Your task to perform on an android device: Open eBay Image 0: 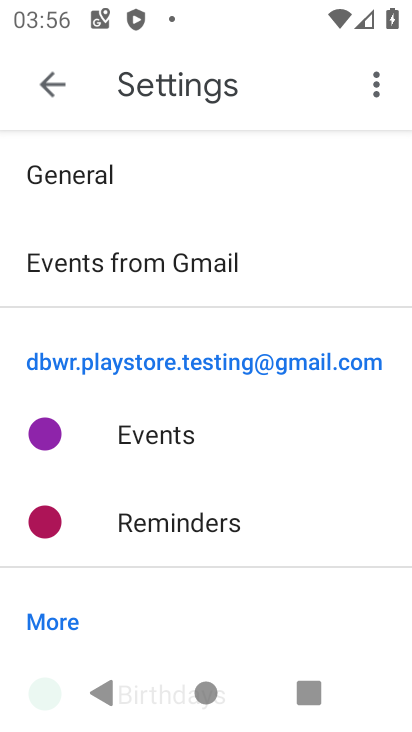
Step 0: press home button
Your task to perform on an android device: Open eBay Image 1: 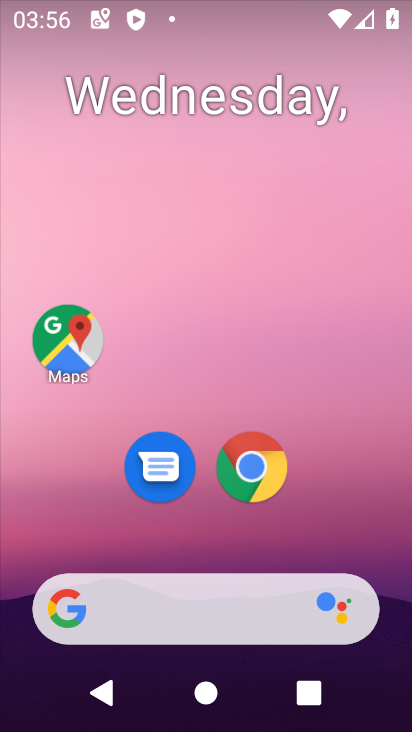
Step 1: click (249, 464)
Your task to perform on an android device: Open eBay Image 2: 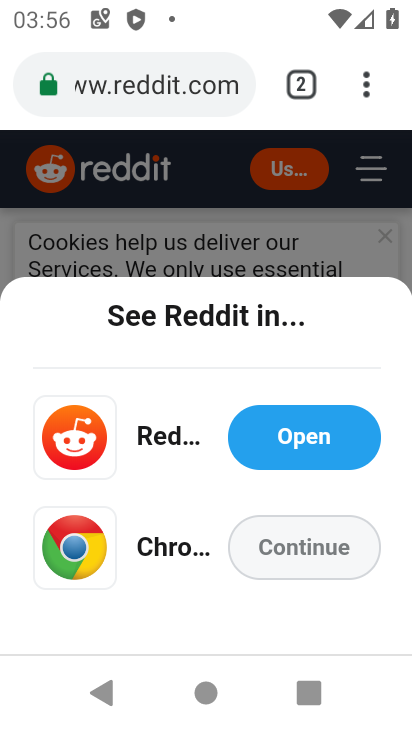
Step 2: click (134, 82)
Your task to perform on an android device: Open eBay Image 3: 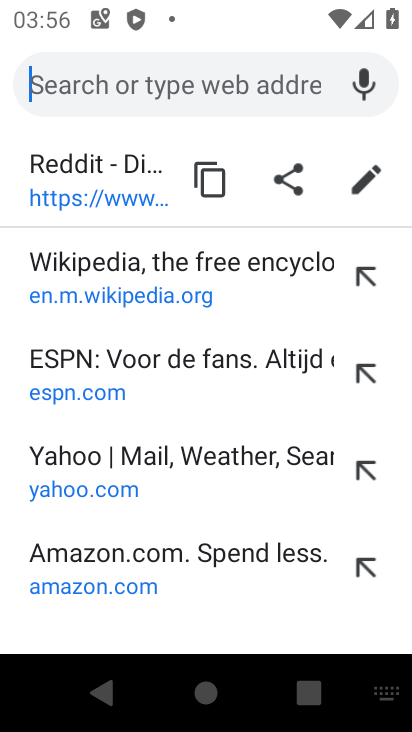
Step 3: type "ebay"
Your task to perform on an android device: Open eBay Image 4: 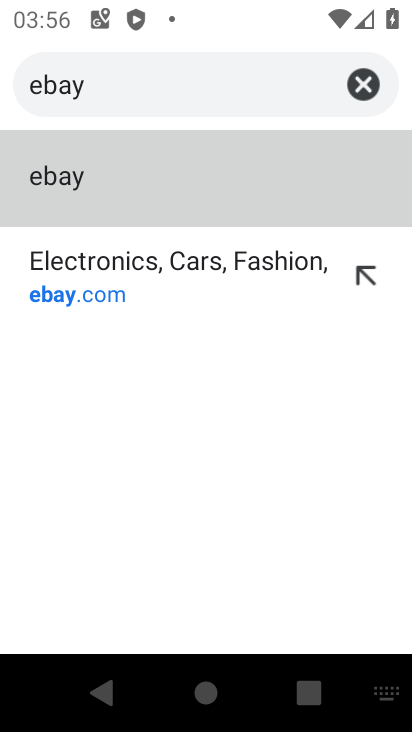
Step 4: click (85, 277)
Your task to perform on an android device: Open eBay Image 5: 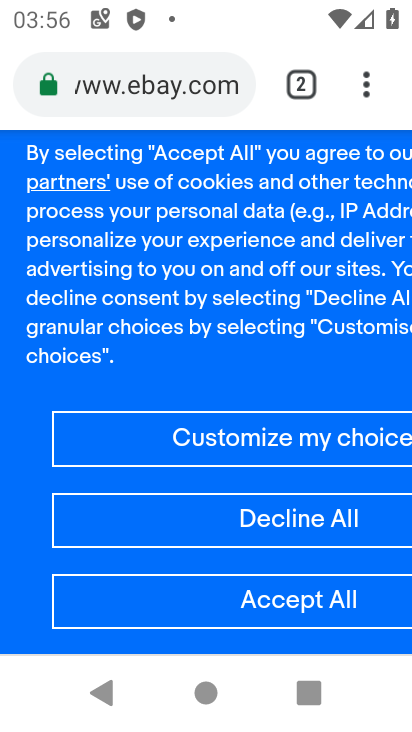
Step 5: task complete